Your task to perform on an android device: Search for asus zenbook on walmart.com, select the first entry, and add it to the cart. Image 0: 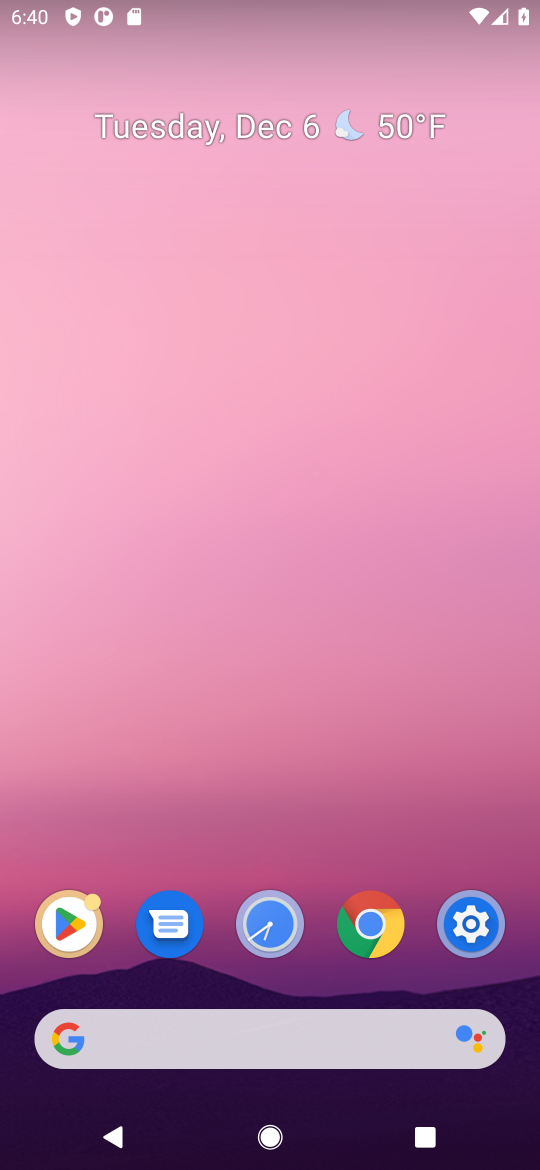
Step 0: click (209, 1018)
Your task to perform on an android device: Search for asus zenbook on walmart.com, select the first entry, and add it to the cart. Image 1: 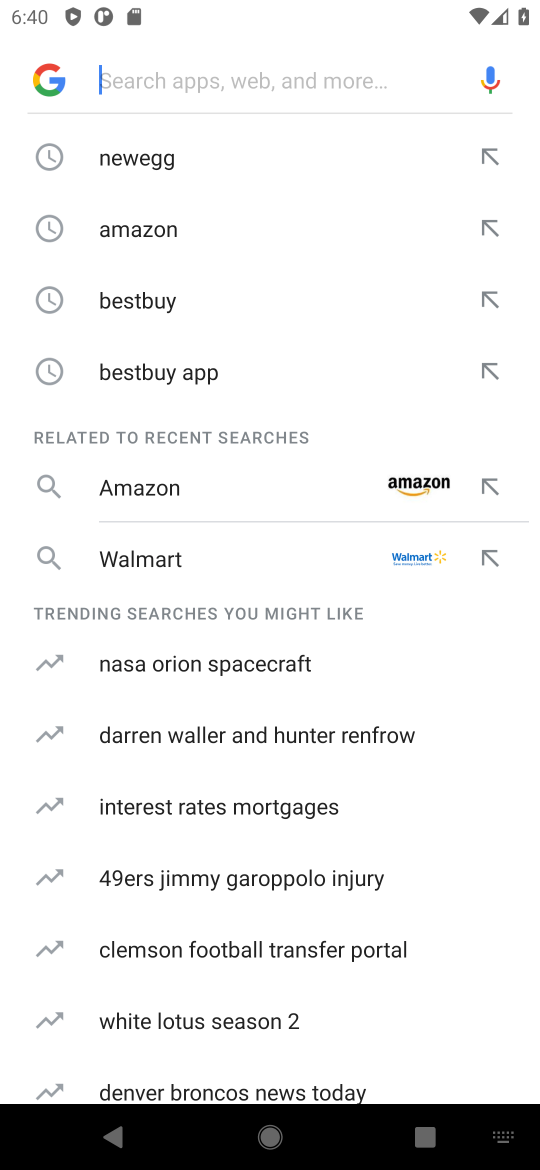
Step 1: type "walmart"
Your task to perform on an android device: Search for asus zenbook on walmart.com, select the first entry, and add it to the cart. Image 2: 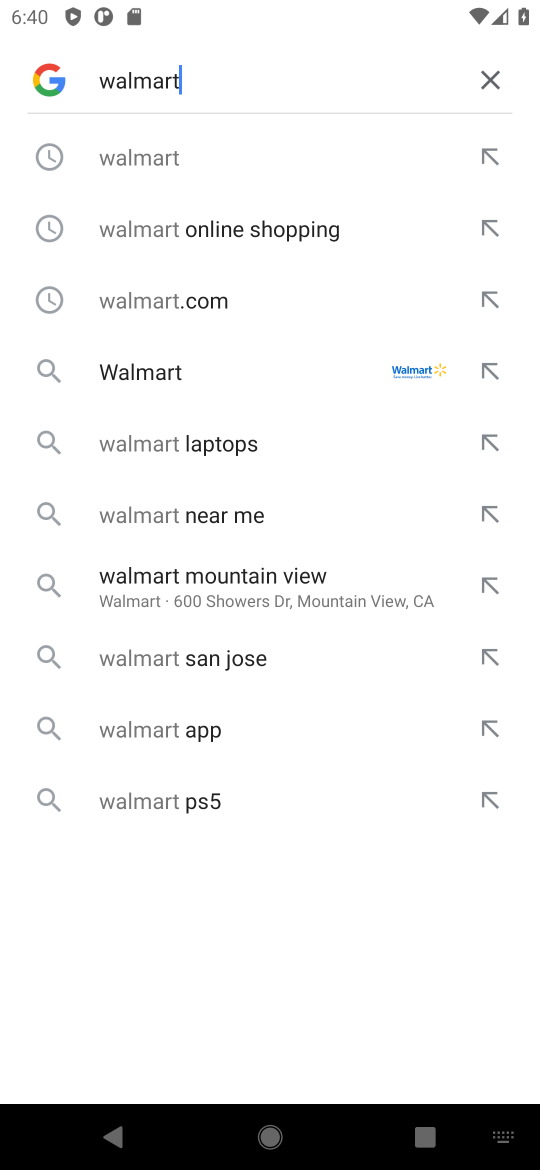
Step 2: click (122, 140)
Your task to perform on an android device: Search for asus zenbook on walmart.com, select the first entry, and add it to the cart. Image 3: 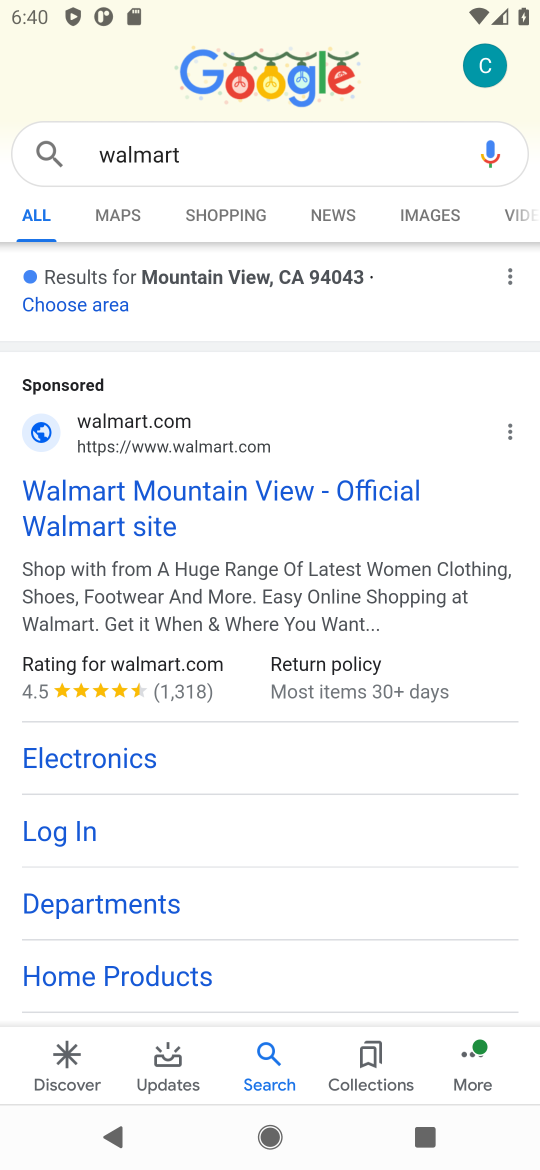
Step 3: click (119, 497)
Your task to perform on an android device: Search for asus zenbook on walmart.com, select the first entry, and add it to the cart. Image 4: 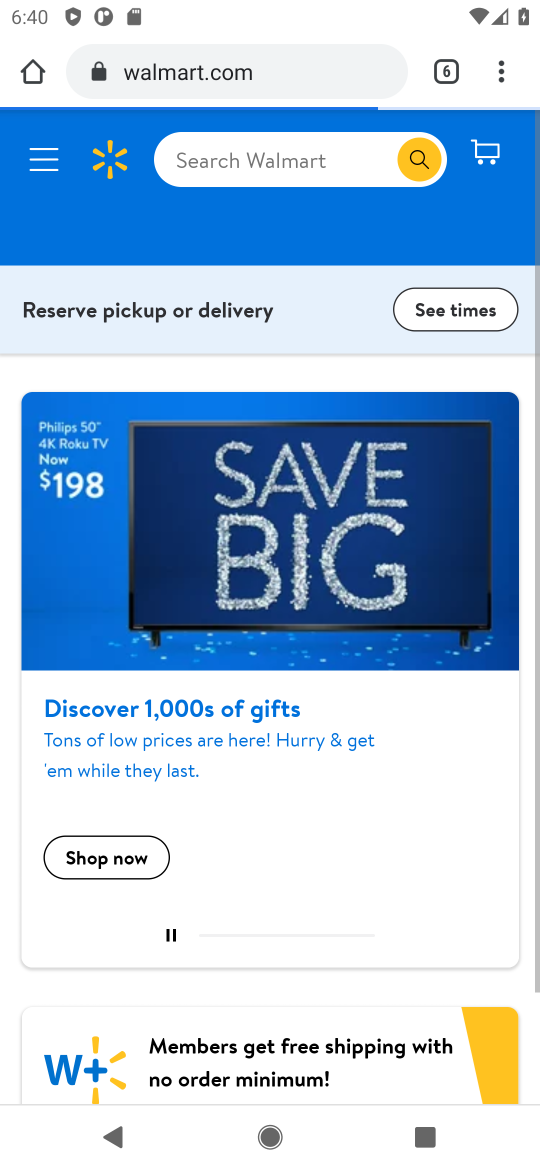
Step 4: click (261, 156)
Your task to perform on an android device: Search for asus zenbook on walmart.com, select the first entry, and add it to the cart. Image 5: 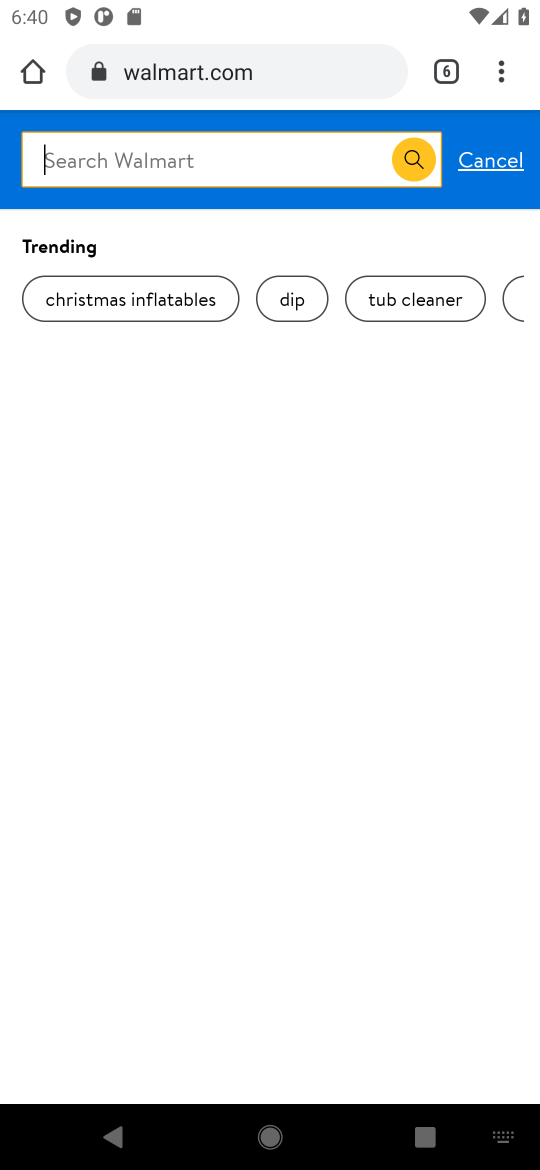
Step 5: type "asus walmart"
Your task to perform on an android device: Search for asus zenbook on walmart.com, select the first entry, and add it to the cart. Image 6: 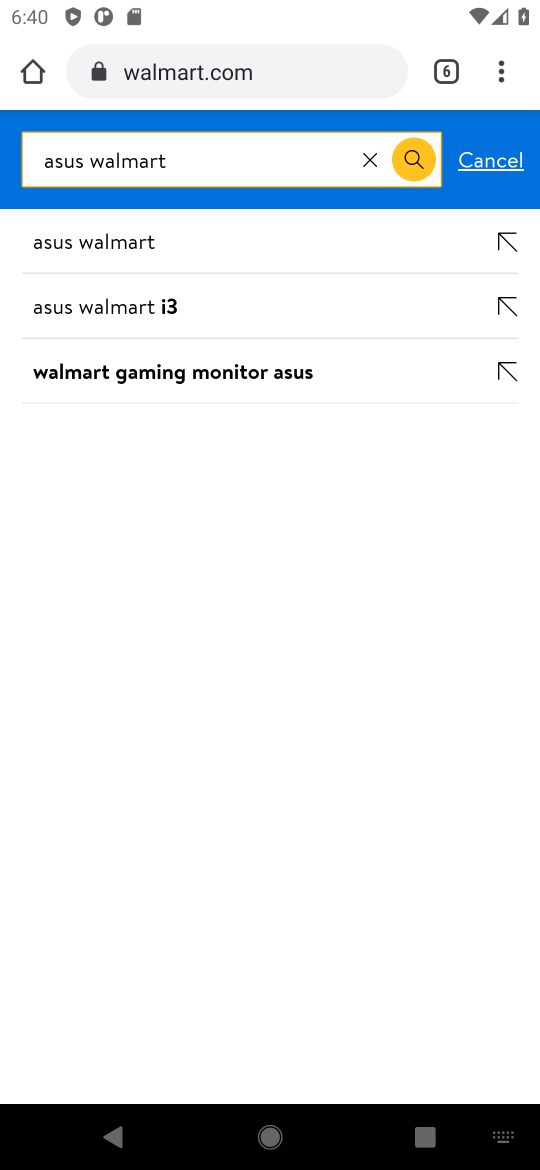
Step 6: click (138, 260)
Your task to perform on an android device: Search for asus zenbook on walmart.com, select the first entry, and add it to the cart. Image 7: 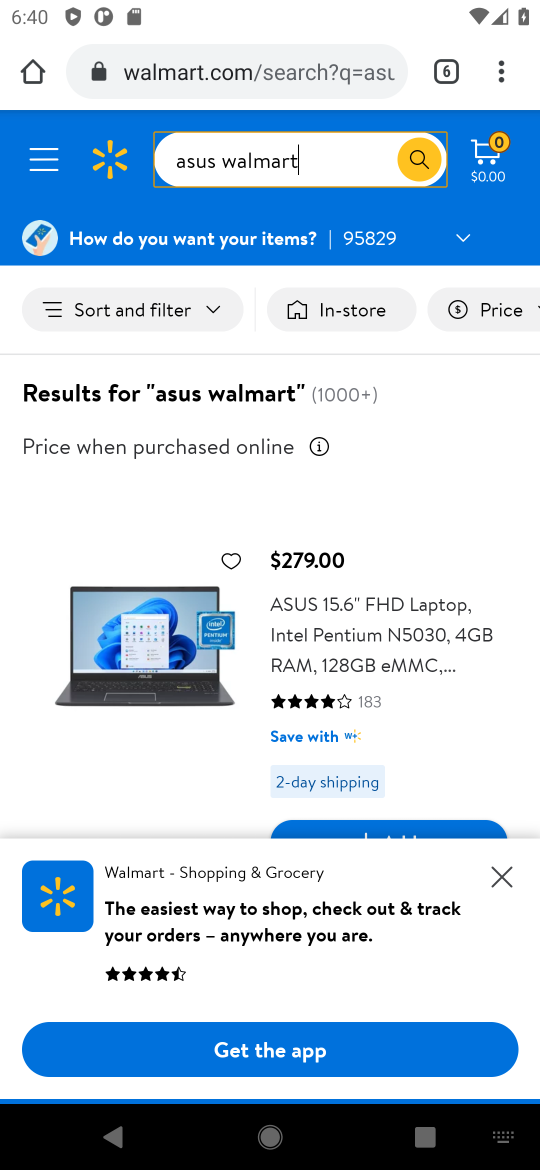
Step 7: click (500, 877)
Your task to perform on an android device: Search for asus zenbook on walmart.com, select the first entry, and add it to the cart. Image 8: 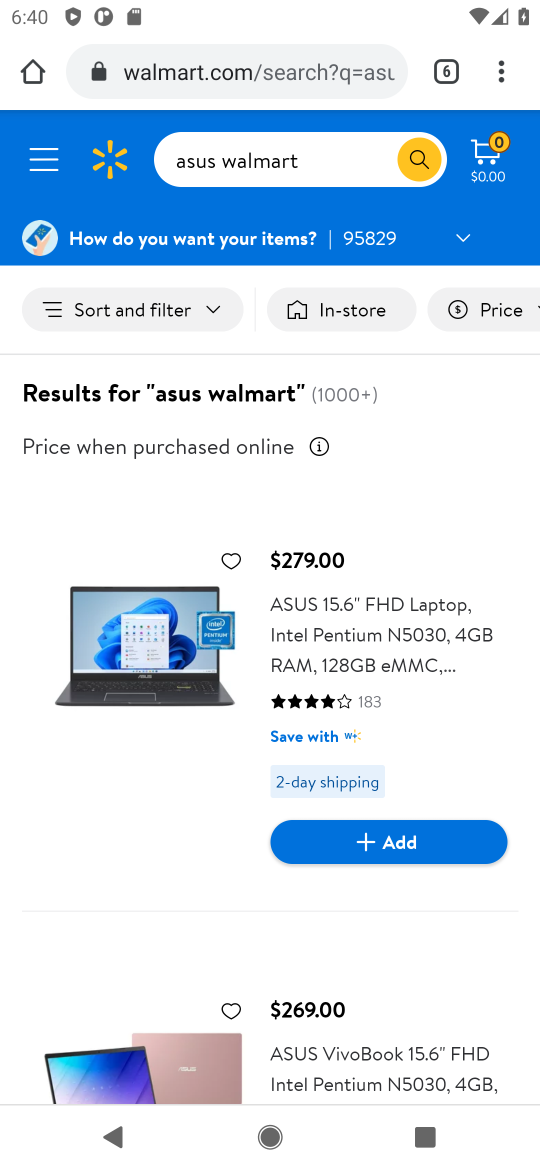
Step 8: click (426, 840)
Your task to perform on an android device: Search for asus zenbook on walmart.com, select the first entry, and add it to the cart. Image 9: 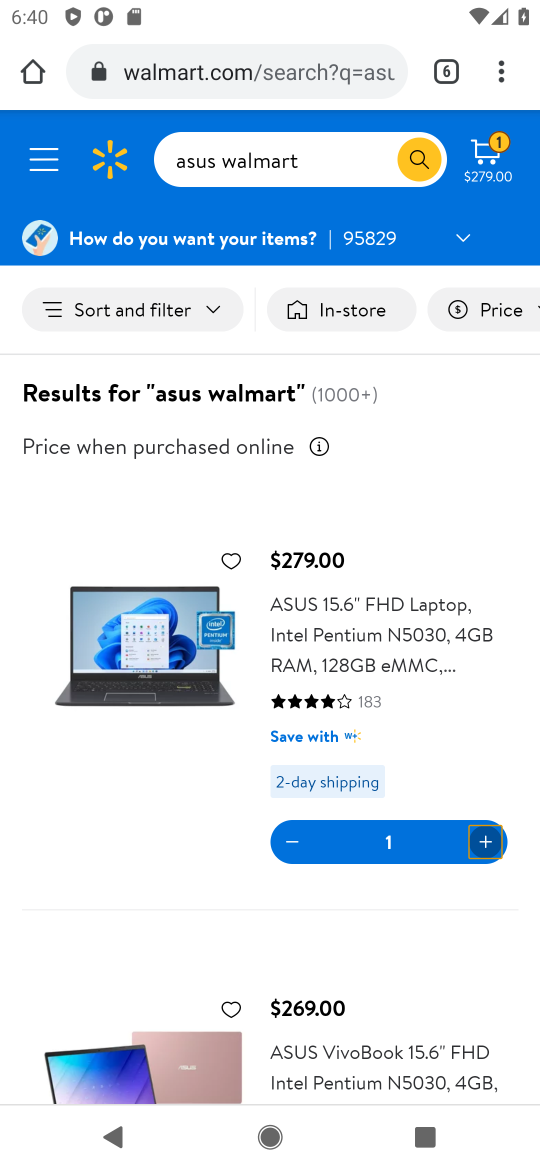
Step 9: task complete